Your task to perform on an android device: Open Android settings Image 0: 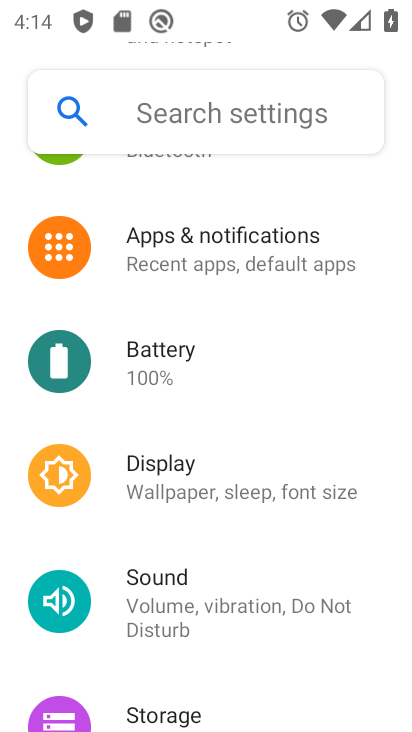
Step 0: drag from (262, 661) to (347, 9)
Your task to perform on an android device: Open Android settings Image 1: 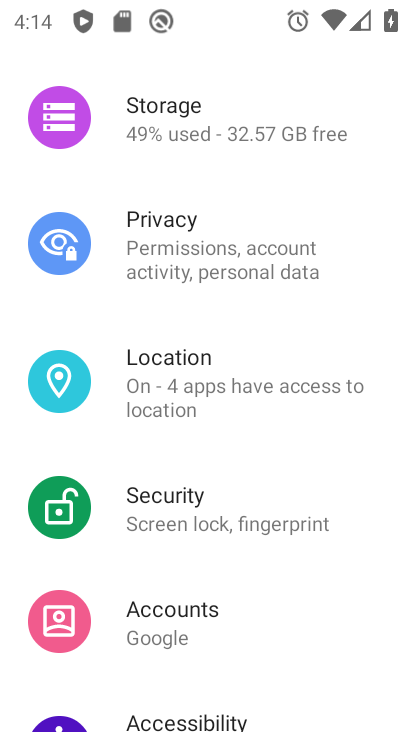
Step 1: drag from (170, 652) to (345, 18)
Your task to perform on an android device: Open Android settings Image 2: 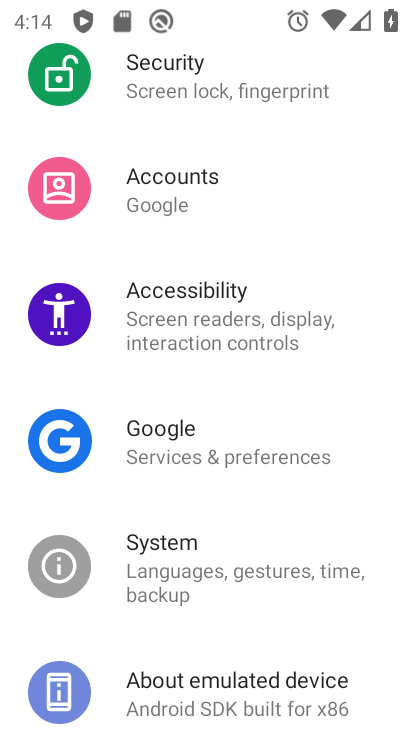
Step 2: click (219, 685)
Your task to perform on an android device: Open Android settings Image 3: 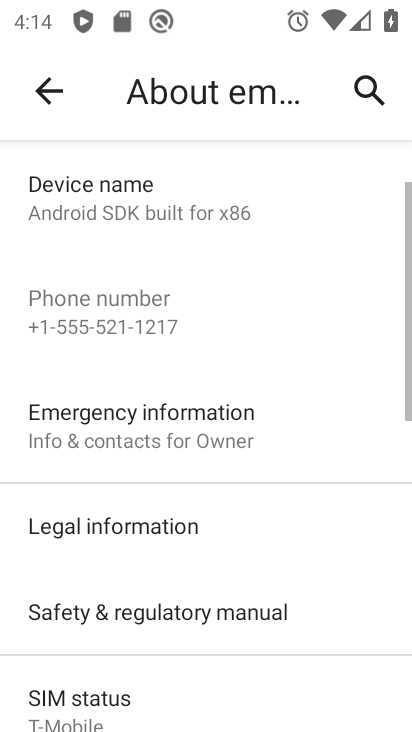
Step 3: drag from (219, 678) to (331, 66)
Your task to perform on an android device: Open Android settings Image 4: 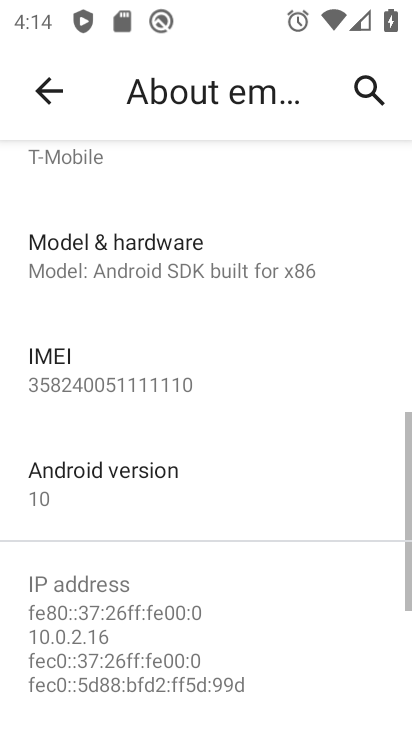
Step 4: click (193, 469)
Your task to perform on an android device: Open Android settings Image 5: 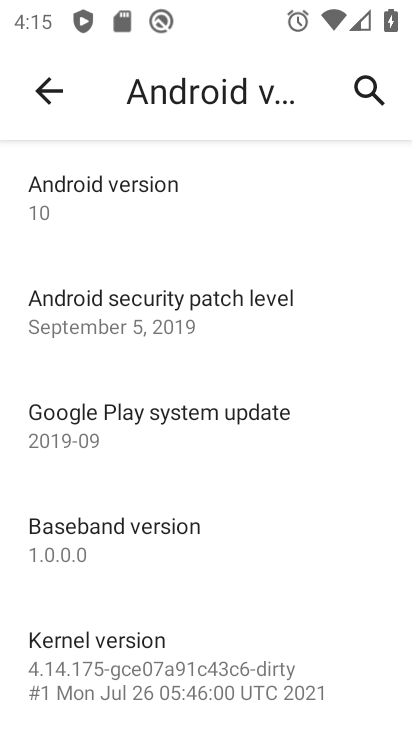
Step 5: task complete